Your task to perform on an android device: install app "Google Keep" Image 0: 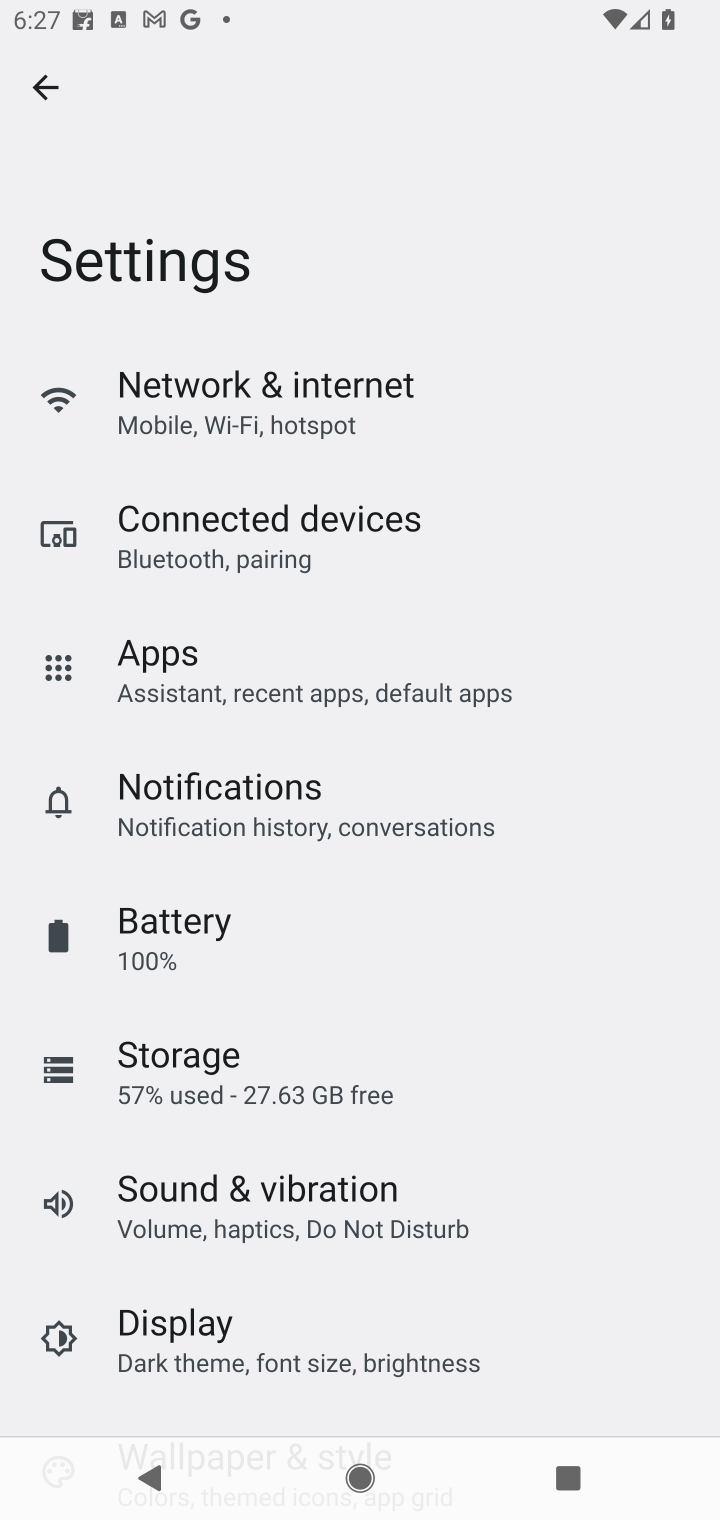
Step 0: press home button
Your task to perform on an android device: install app "Google Keep" Image 1: 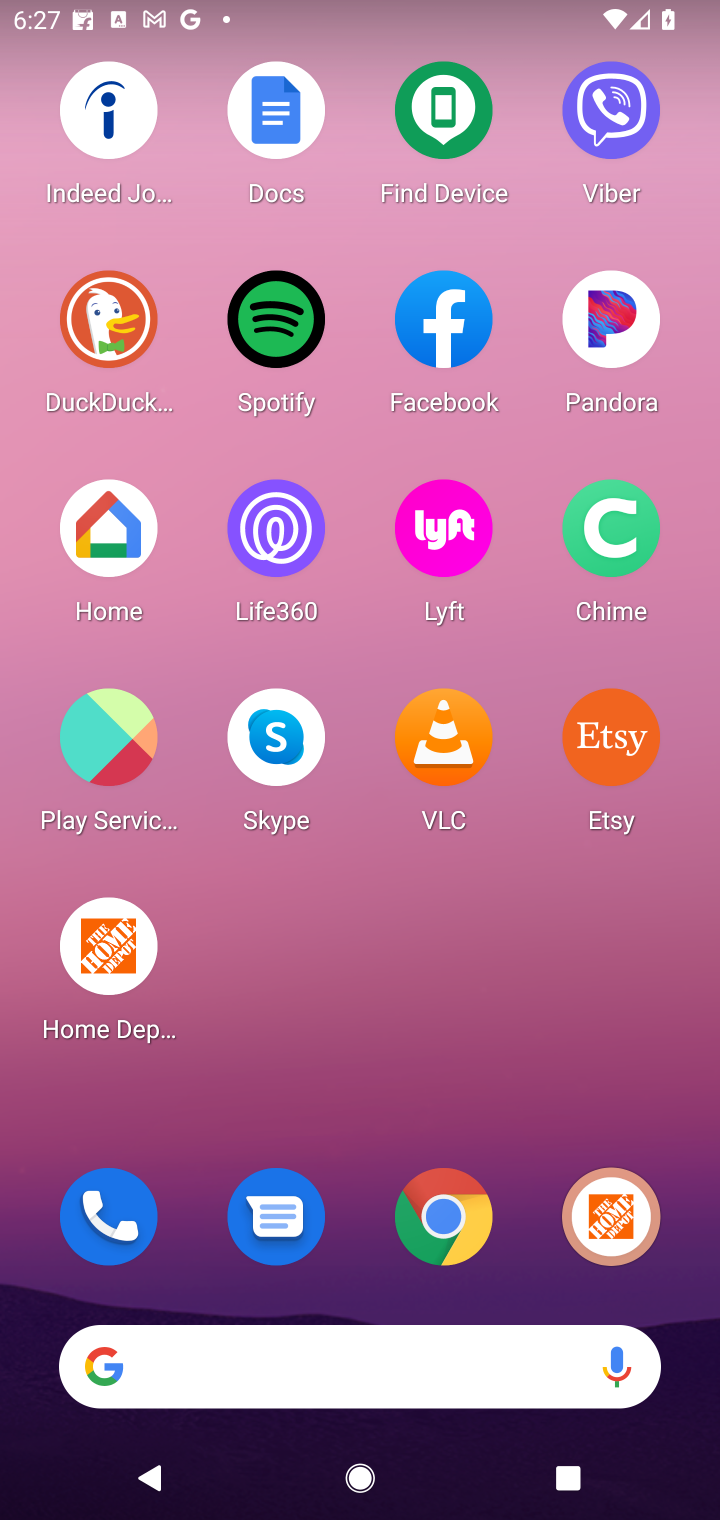
Step 1: drag from (361, 729) to (385, 91)
Your task to perform on an android device: install app "Google Keep" Image 2: 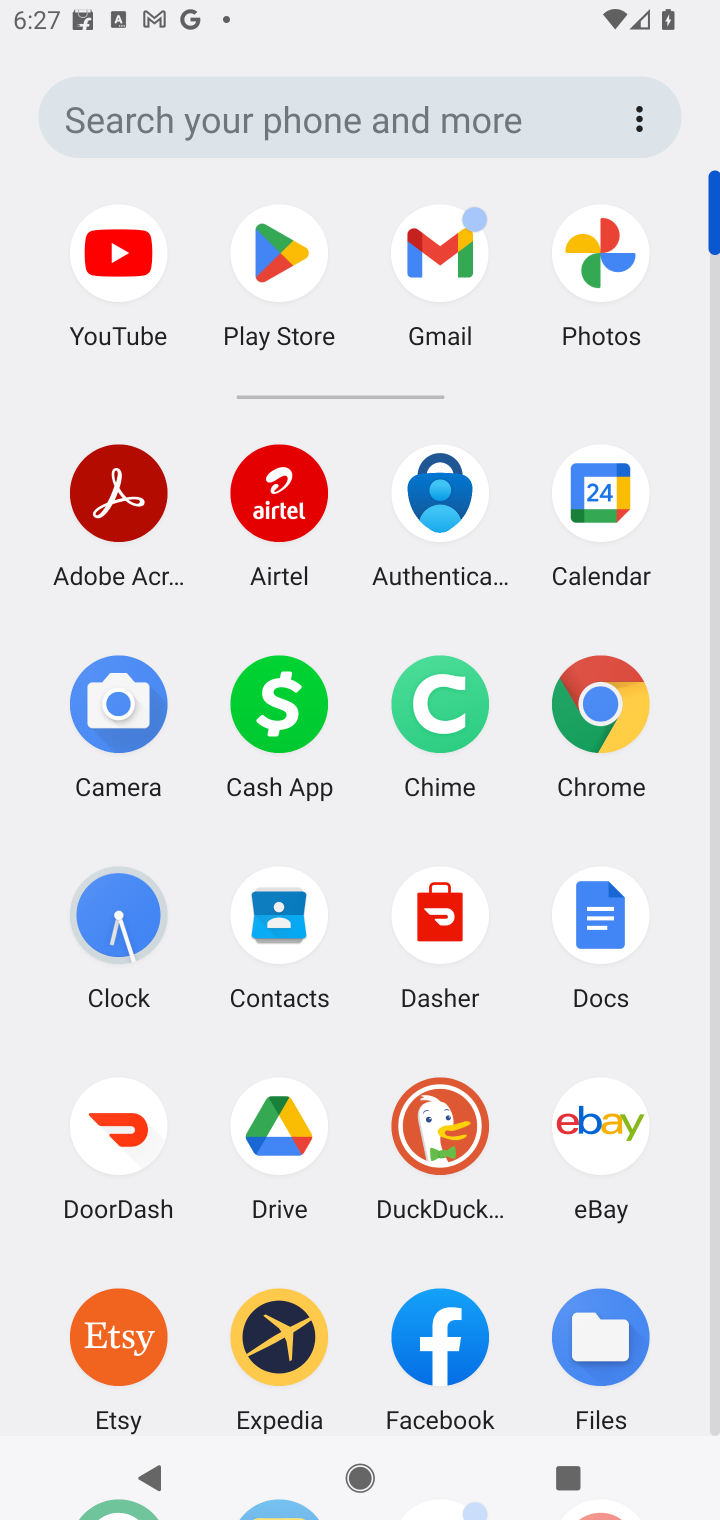
Step 2: click (274, 256)
Your task to perform on an android device: install app "Google Keep" Image 3: 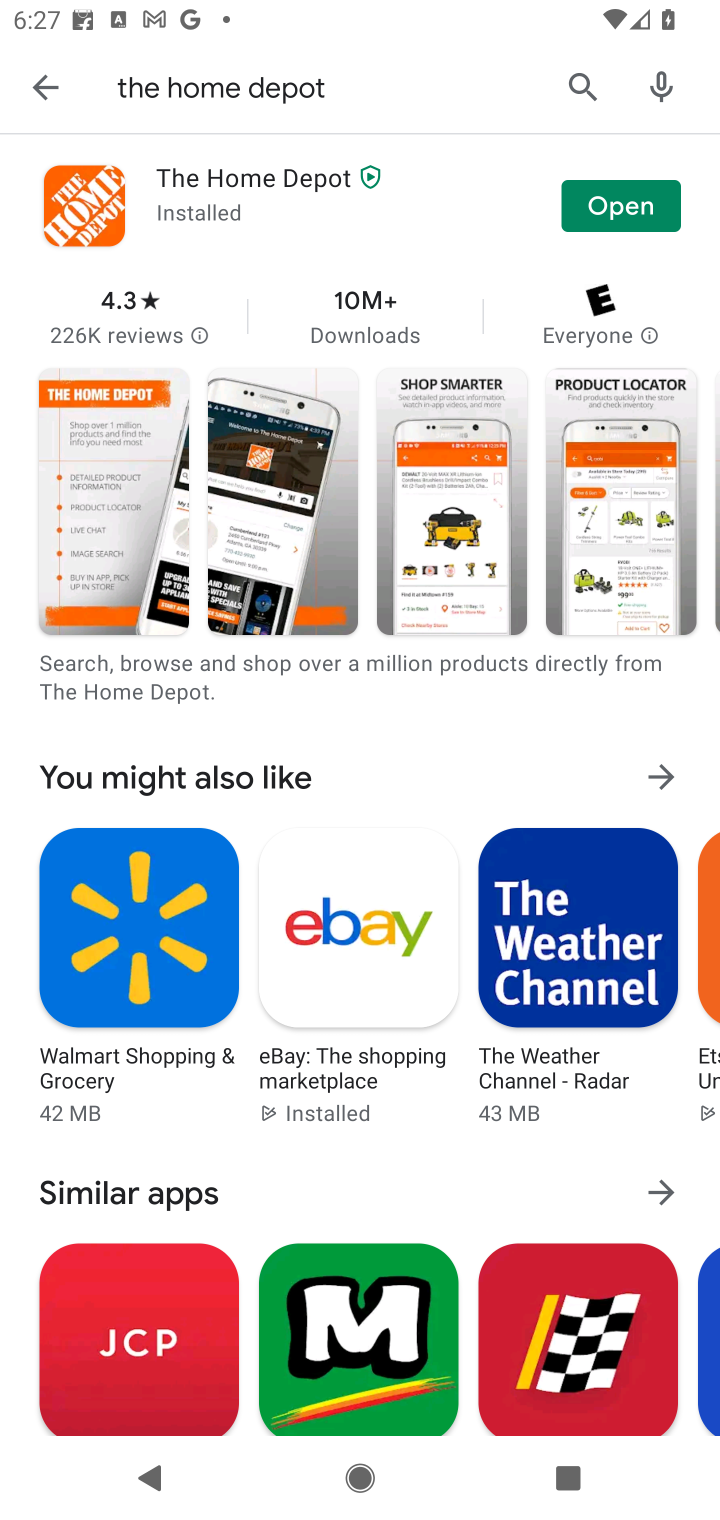
Step 3: click (581, 73)
Your task to perform on an android device: install app "Google Keep" Image 4: 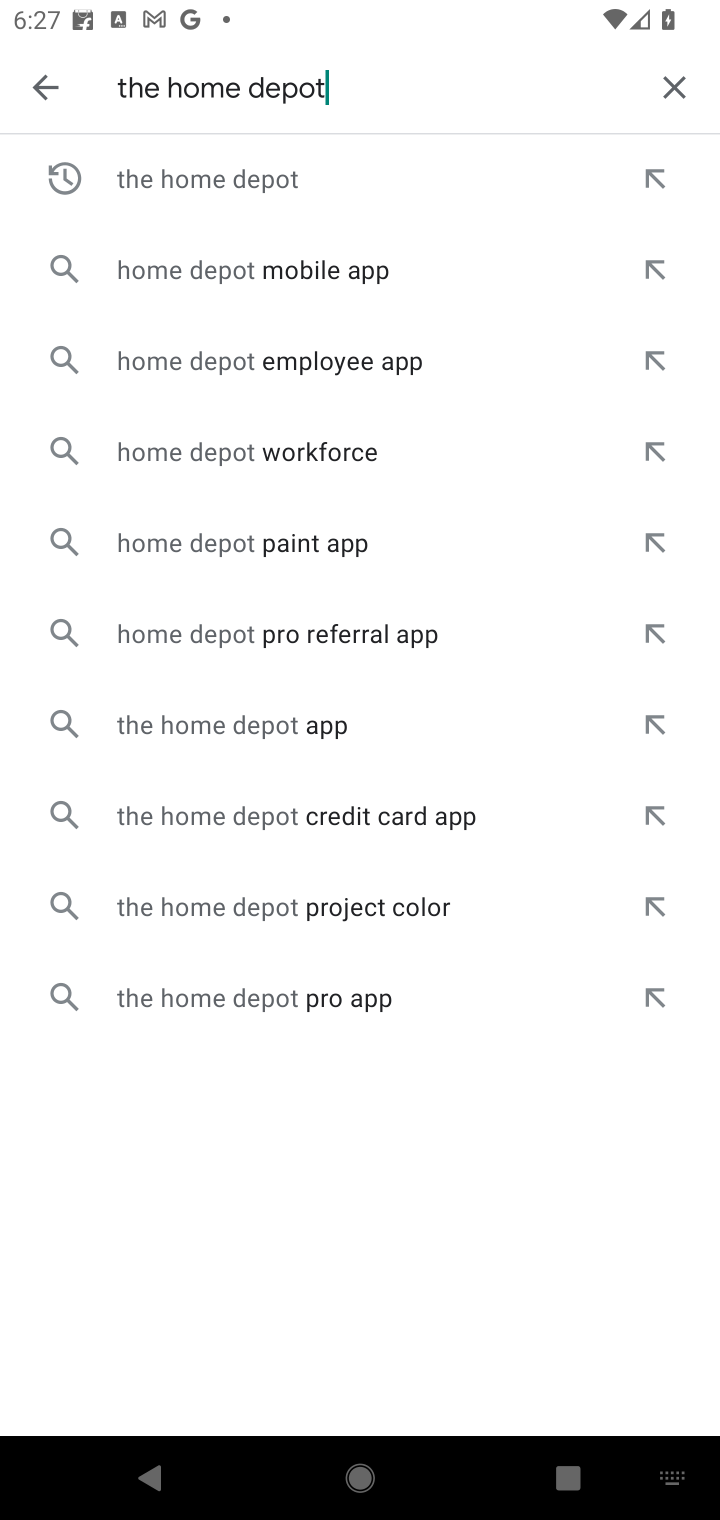
Step 4: click (663, 73)
Your task to perform on an android device: install app "Google Keep" Image 5: 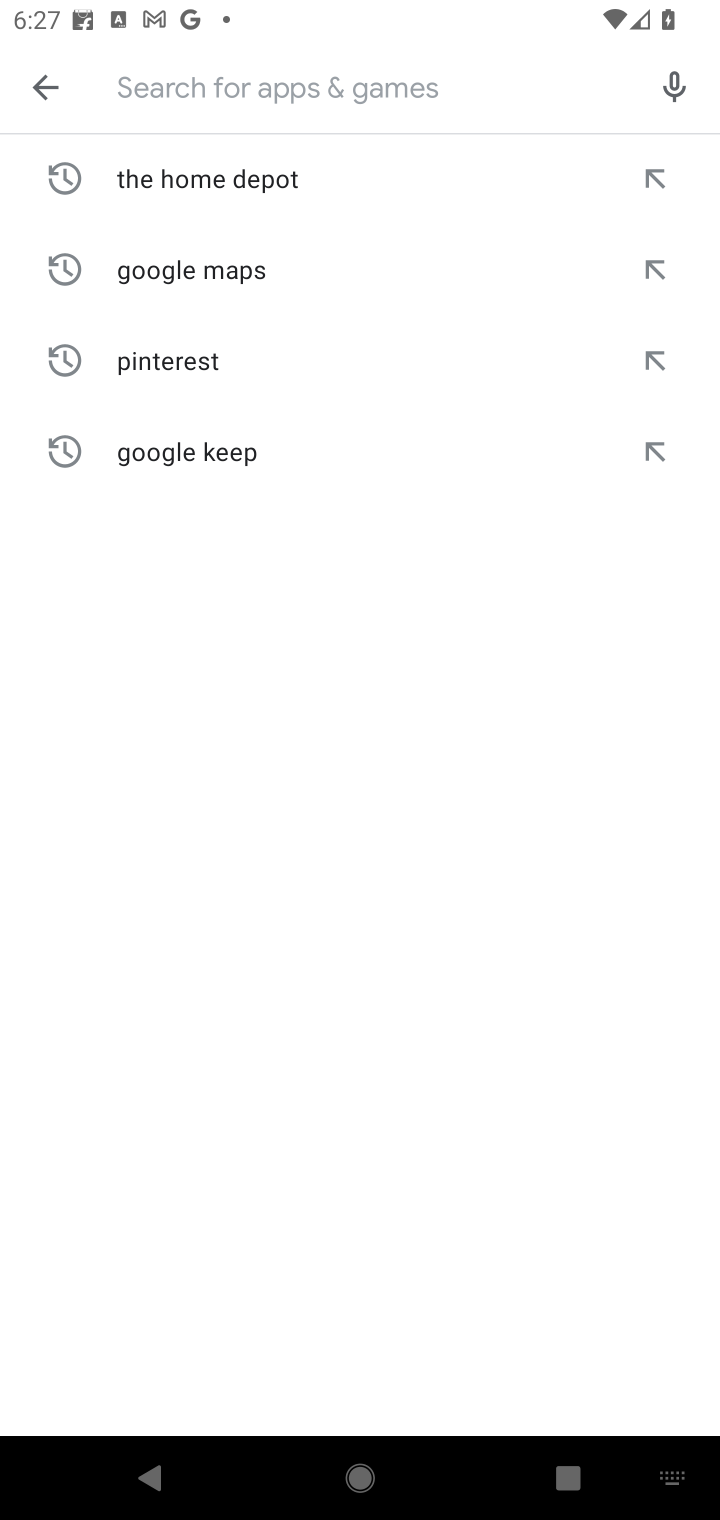
Step 5: type "Google Keep"
Your task to perform on an android device: install app "Google Keep" Image 6: 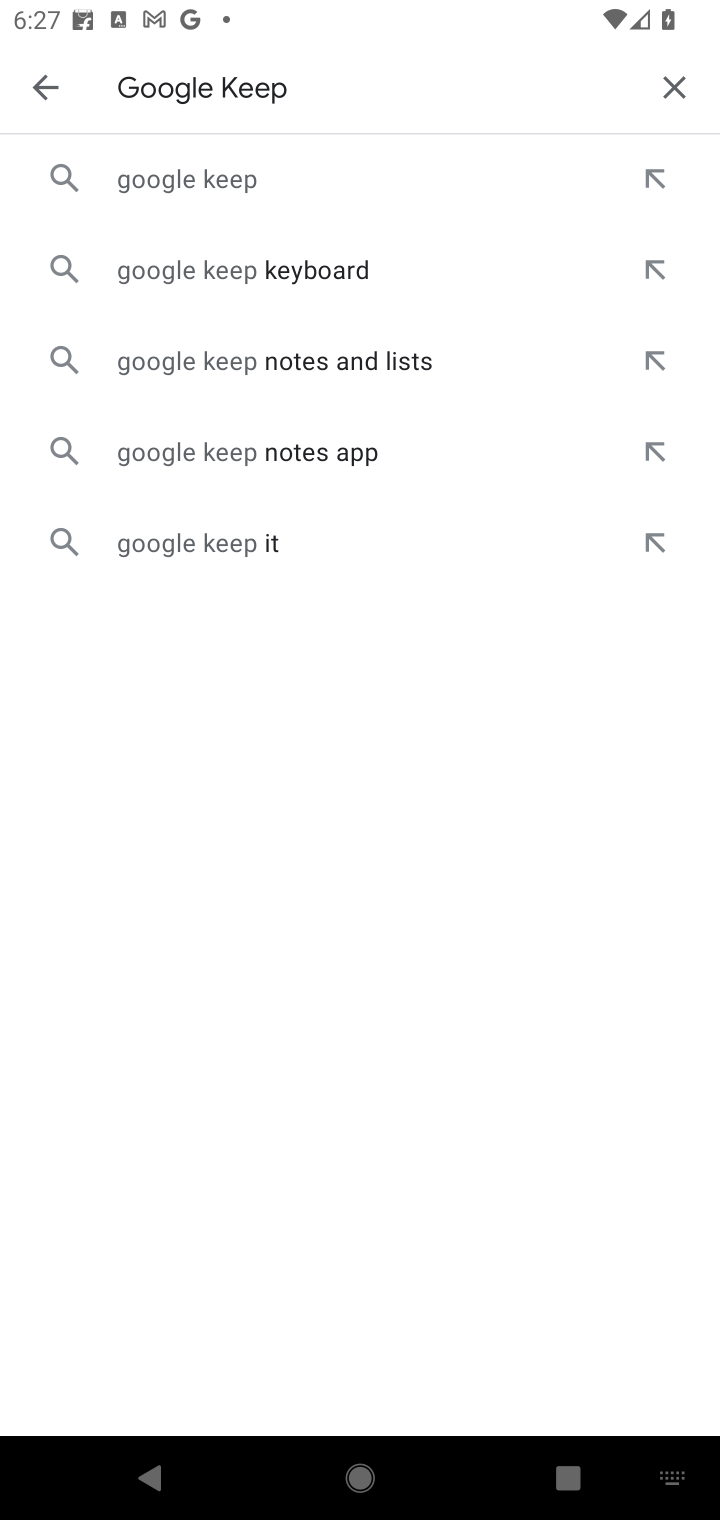
Step 6: click (295, 159)
Your task to perform on an android device: install app "Google Keep" Image 7: 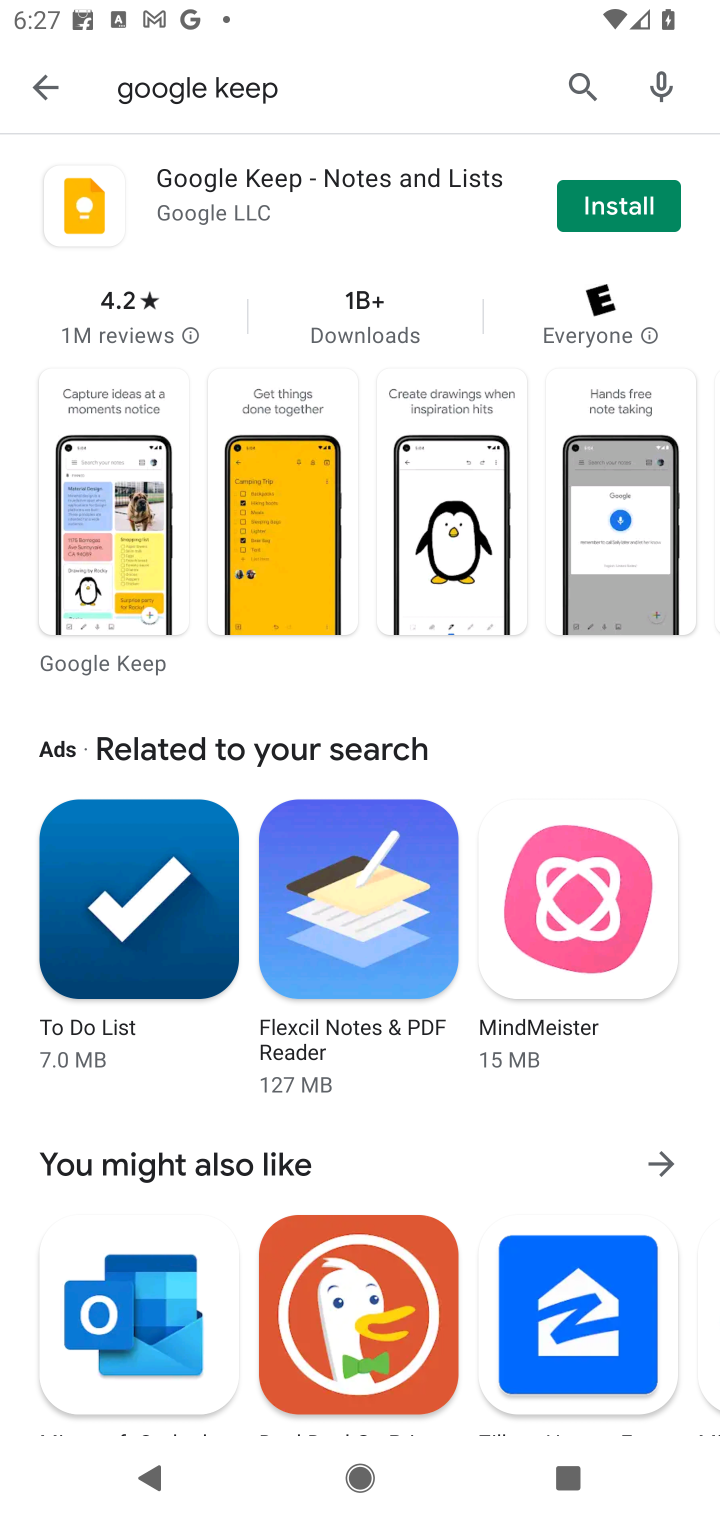
Step 7: click (622, 202)
Your task to perform on an android device: install app "Google Keep" Image 8: 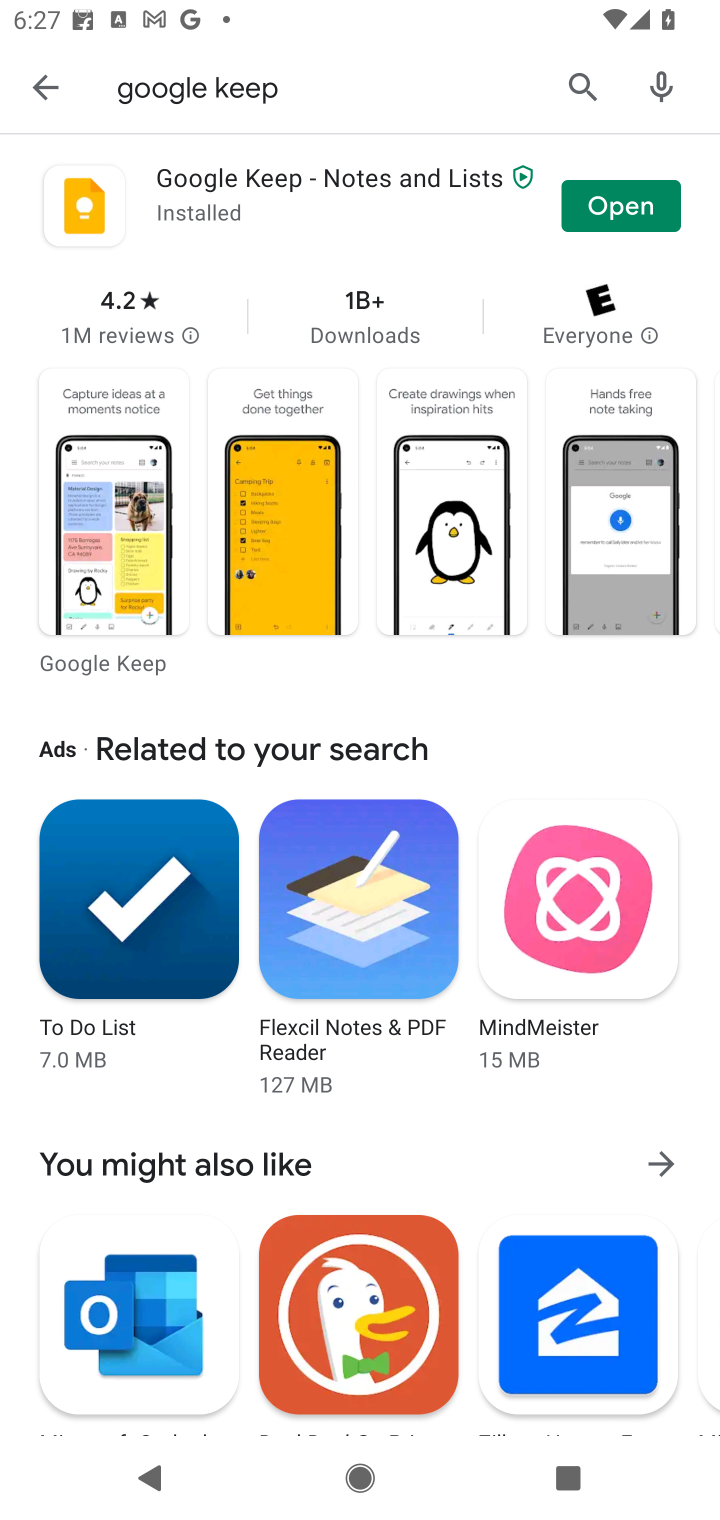
Step 8: task complete